Your task to perform on an android device: turn off data saver in the chrome app Image 0: 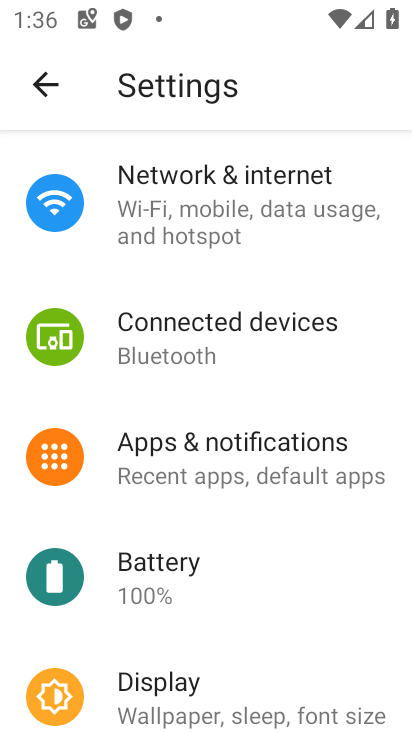
Step 0: press home button
Your task to perform on an android device: turn off data saver in the chrome app Image 1: 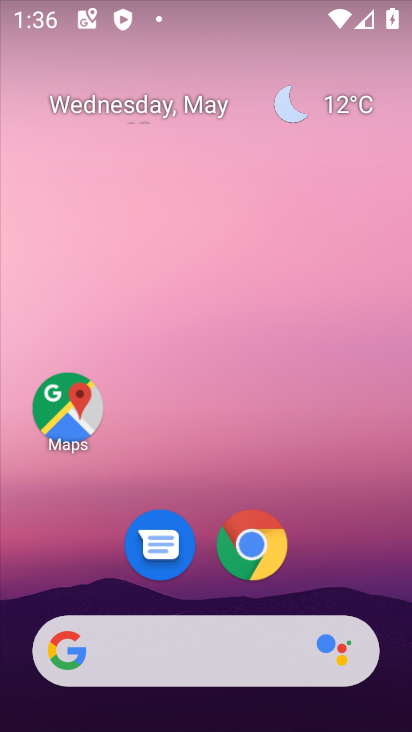
Step 1: click (258, 532)
Your task to perform on an android device: turn off data saver in the chrome app Image 2: 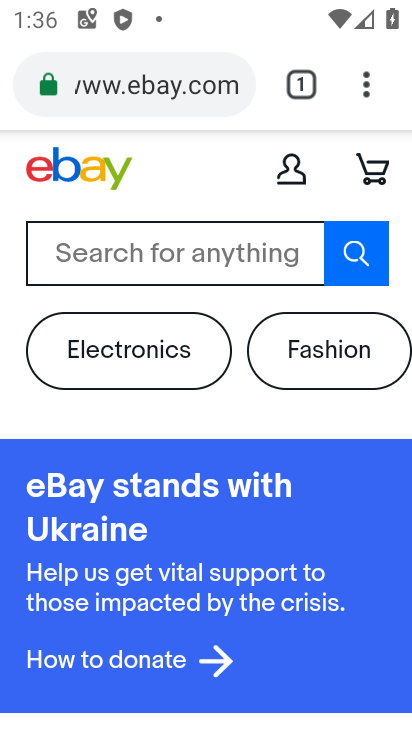
Step 2: click (370, 105)
Your task to perform on an android device: turn off data saver in the chrome app Image 3: 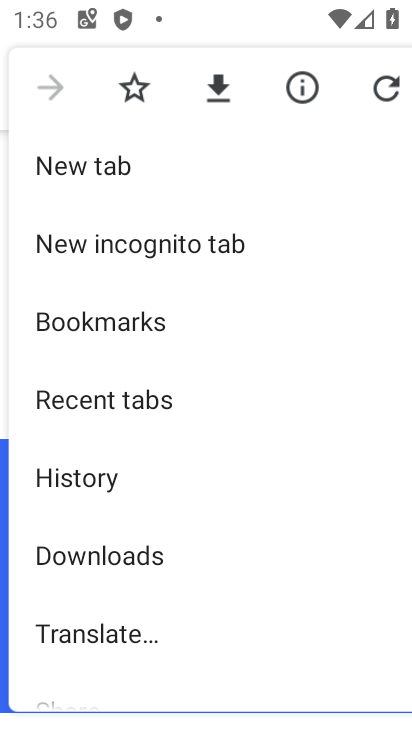
Step 3: drag from (202, 561) to (199, 152)
Your task to perform on an android device: turn off data saver in the chrome app Image 4: 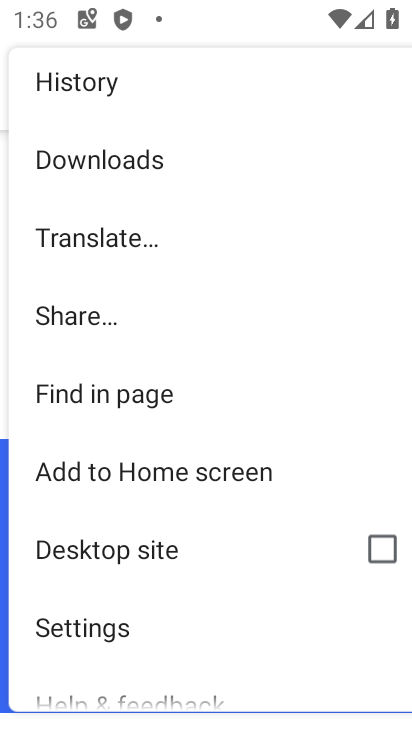
Step 4: click (131, 627)
Your task to perform on an android device: turn off data saver in the chrome app Image 5: 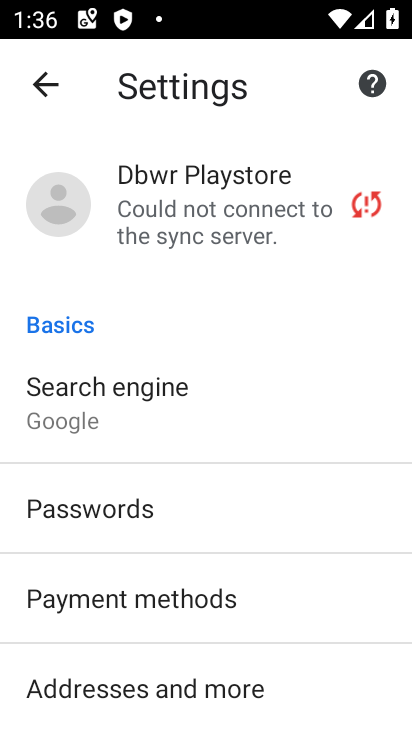
Step 5: drag from (157, 573) to (173, 251)
Your task to perform on an android device: turn off data saver in the chrome app Image 6: 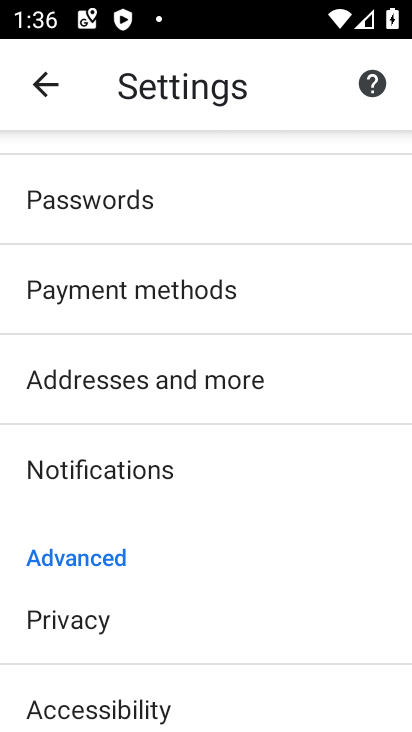
Step 6: drag from (175, 637) to (193, 315)
Your task to perform on an android device: turn off data saver in the chrome app Image 7: 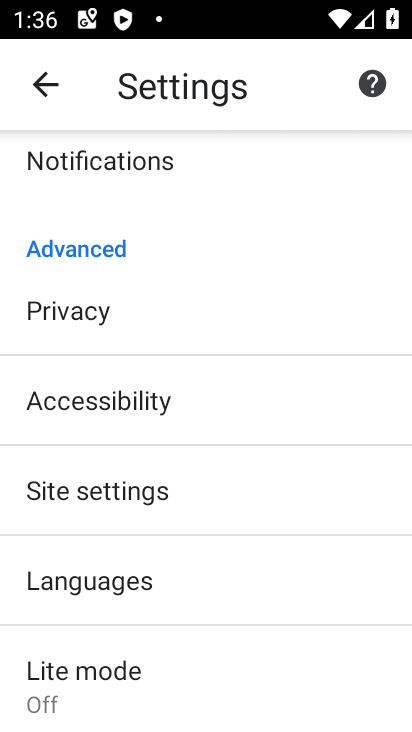
Step 7: drag from (174, 473) to (290, 243)
Your task to perform on an android device: turn off data saver in the chrome app Image 8: 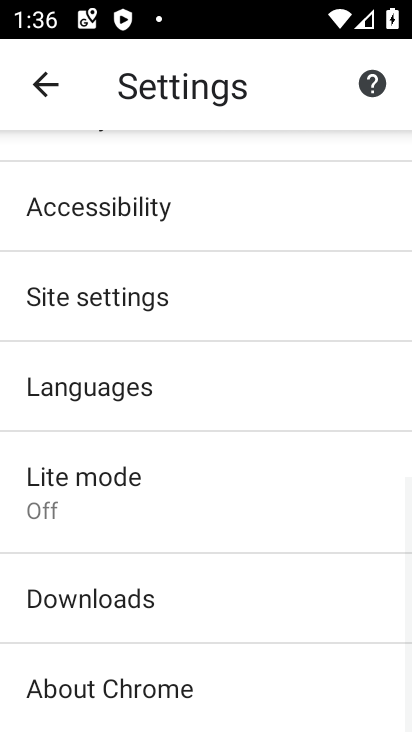
Step 8: click (207, 483)
Your task to perform on an android device: turn off data saver in the chrome app Image 9: 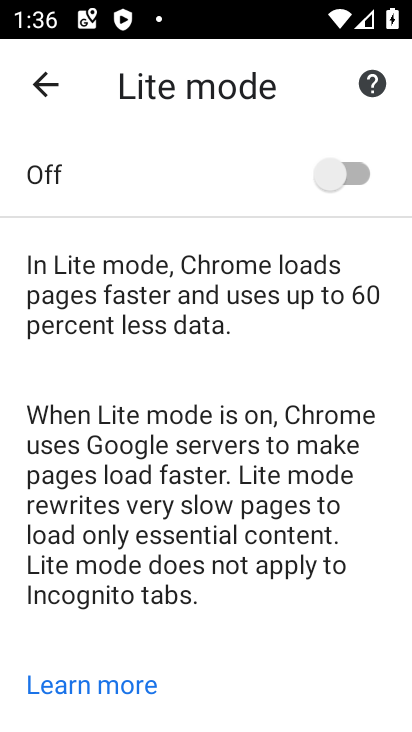
Step 9: task complete